Your task to perform on an android device: toggle improve location accuracy Image 0: 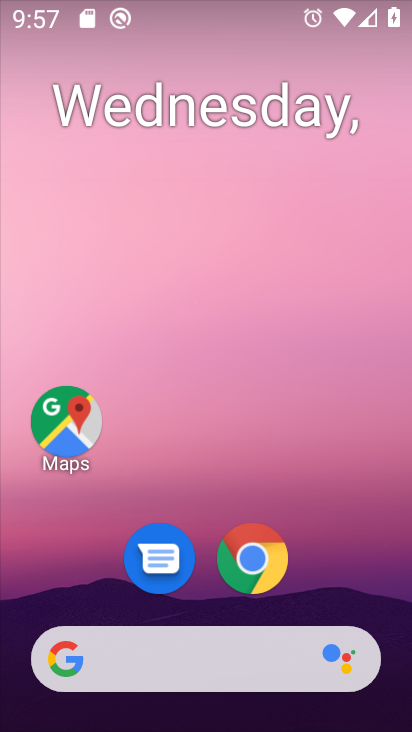
Step 0: drag from (361, 586) to (382, 92)
Your task to perform on an android device: toggle improve location accuracy Image 1: 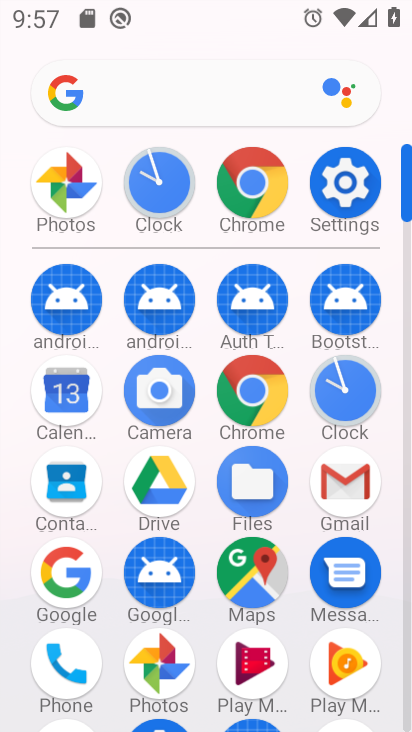
Step 1: click (354, 199)
Your task to perform on an android device: toggle improve location accuracy Image 2: 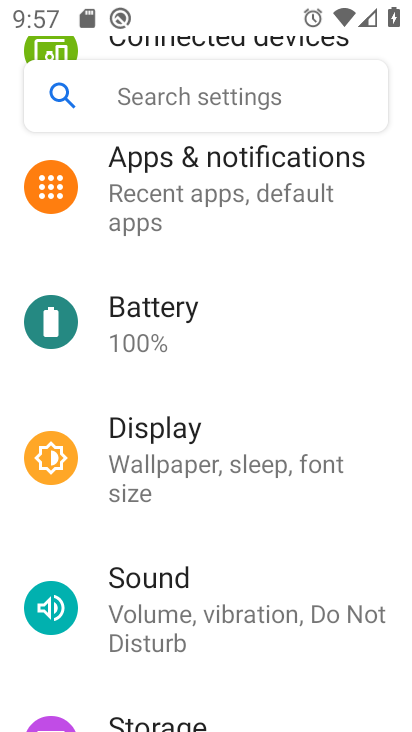
Step 2: drag from (348, 258) to (346, 365)
Your task to perform on an android device: toggle improve location accuracy Image 3: 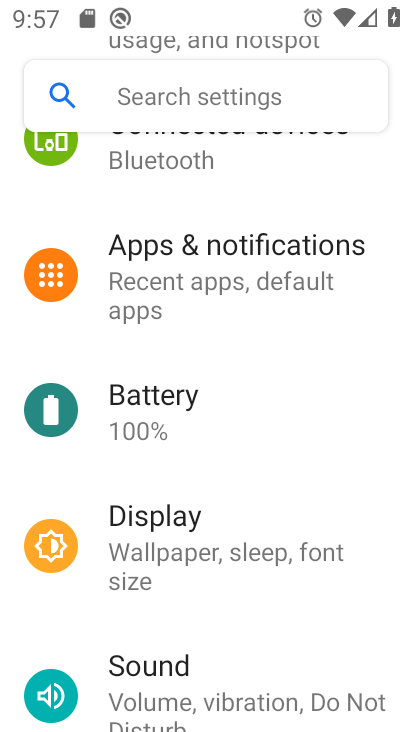
Step 3: drag from (373, 206) to (372, 385)
Your task to perform on an android device: toggle improve location accuracy Image 4: 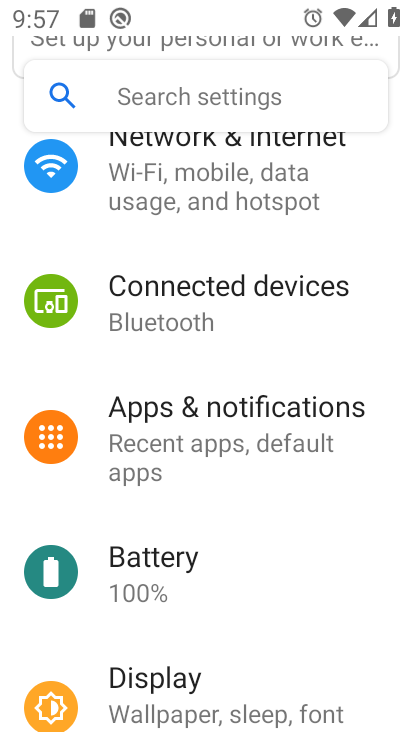
Step 4: drag from (370, 211) to (372, 366)
Your task to perform on an android device: toggle improve location accuracy Image 5: 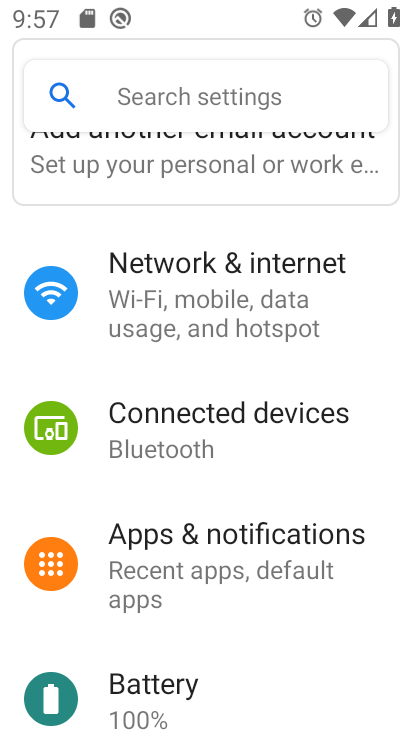
Step 5: drag from (363, 264) to (353, 415)
Your task to perform on an android device: toggle improve location accuracy Image 6: 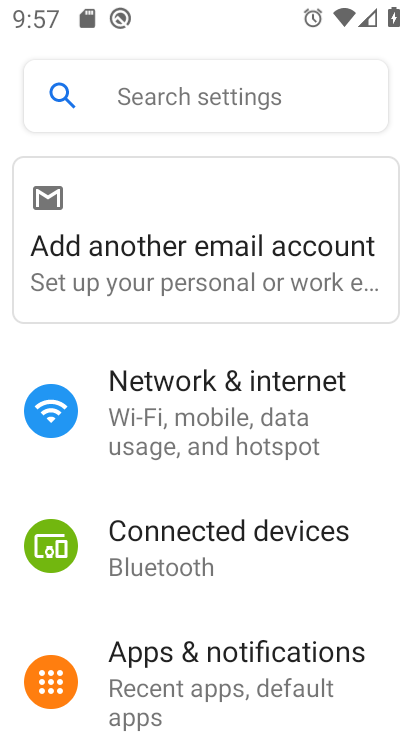
Step 6: drag from (357, 503) to (363, 398)
Your task to perform on an android device: toggle improve location accuracy Image 7: 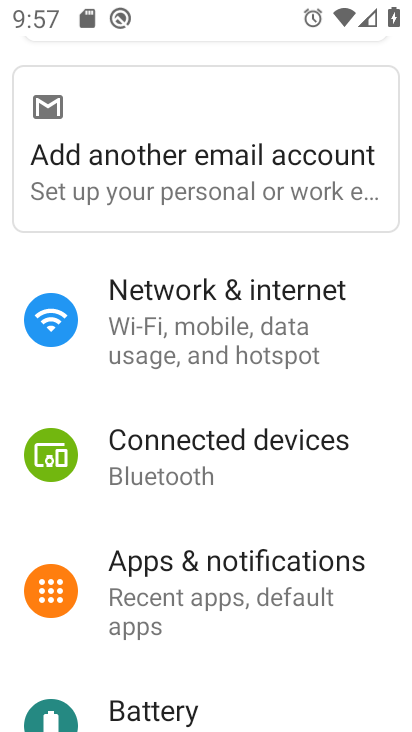
Step 7: drag from (374, 522) to (366, 384)
Your task to perform on an android device: toggle improve location accuracy Image 8: 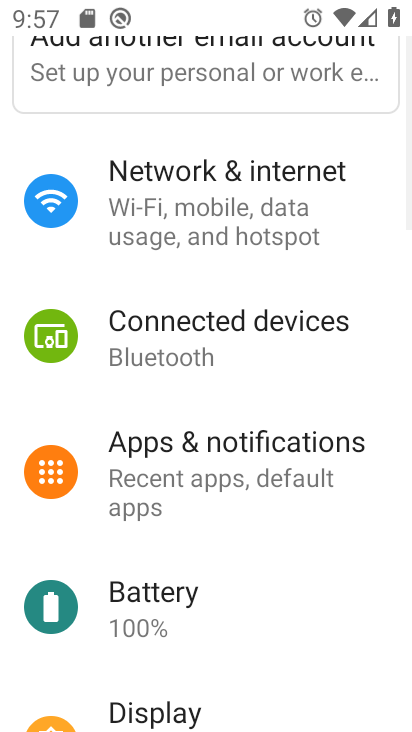
Step 8: drag from (351, 546) to (347, 441)
Your task to perform on an android device: toggle improve location accuracy Image 9: 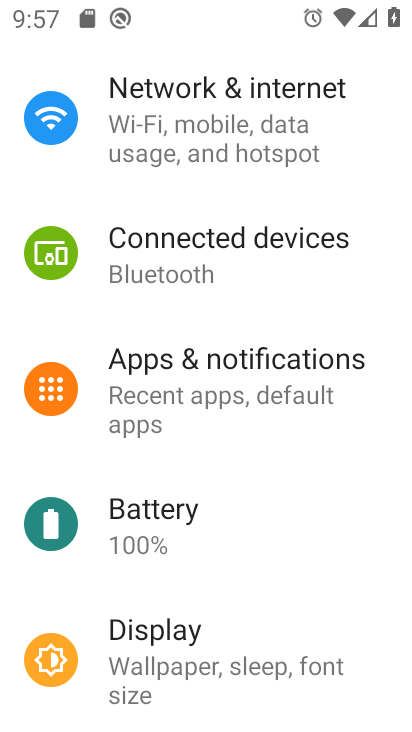
Step 9: drag from (342, 515) to (343, 419)
Your task to perform on an android device: toggle improve location accuracy Image 10: 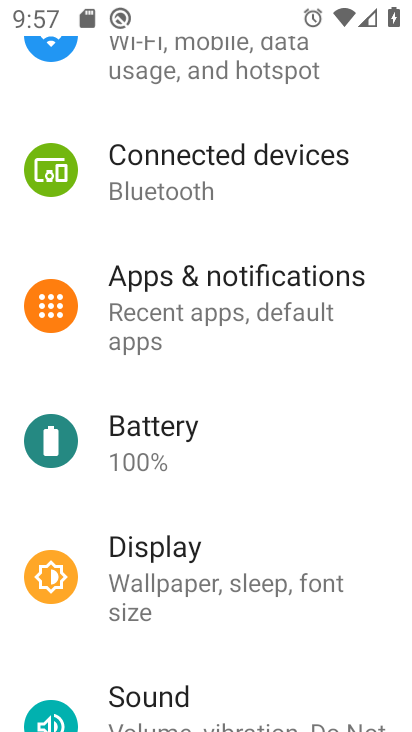
Step 10: drag from (342, 520) to (343, 401)
Your task to perform on an android device: toggle improve location accuracy Image 11: 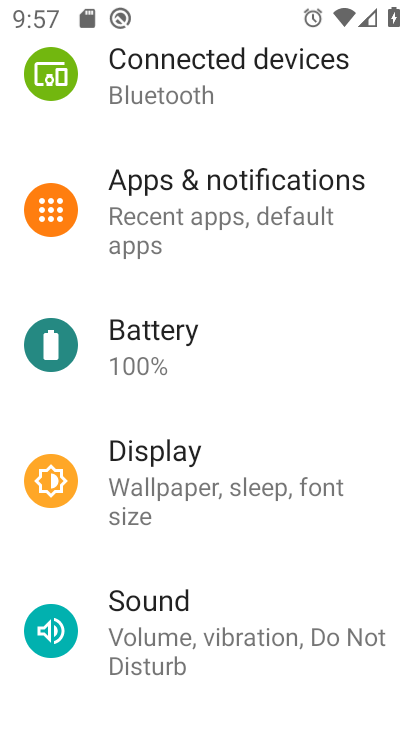
Step 11: drag from (353, 538) to (337, 406)
Your task to perform on an android device: toggle improve location accuracy Image 12: 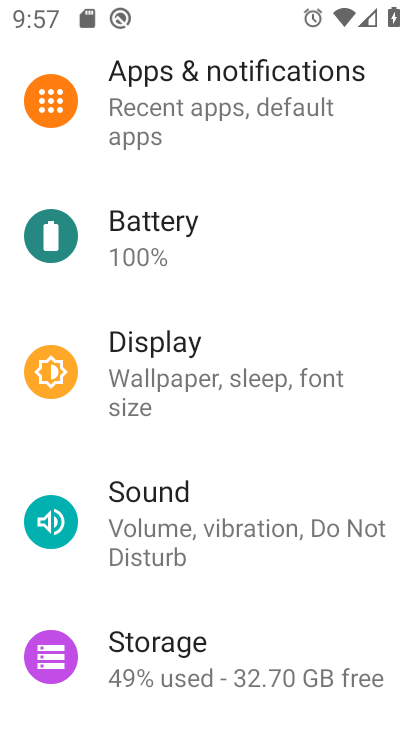
Step 12: drag from (331, 574) to (324, 443)
Your task to perform on an android device: toggle improve location accuracy Image 13: 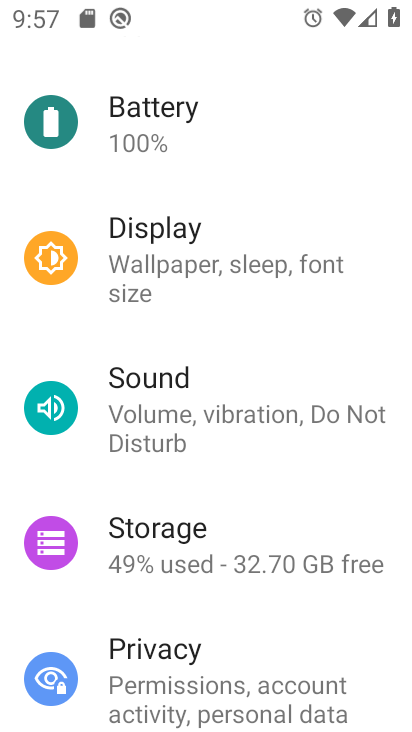
Step 13: drag from (348, 501) to (361, 314)
Your task to perform on an android device: toggle improve location accuracy Image 14: 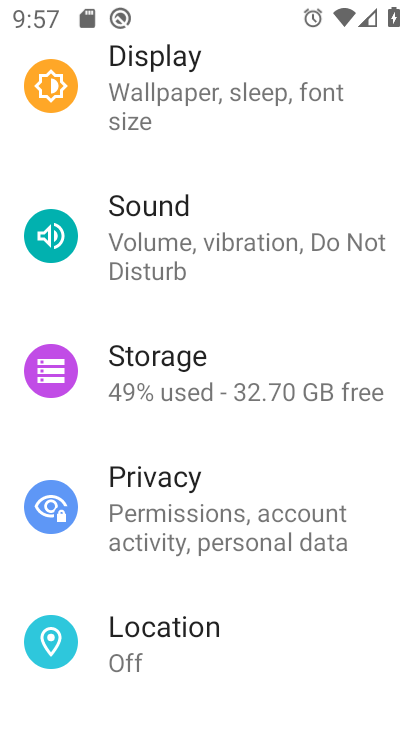
Step 14: drag from (338, 588) to (348, 476)
Your task to perform on an android device: toggle improve location accuracy Image 15: 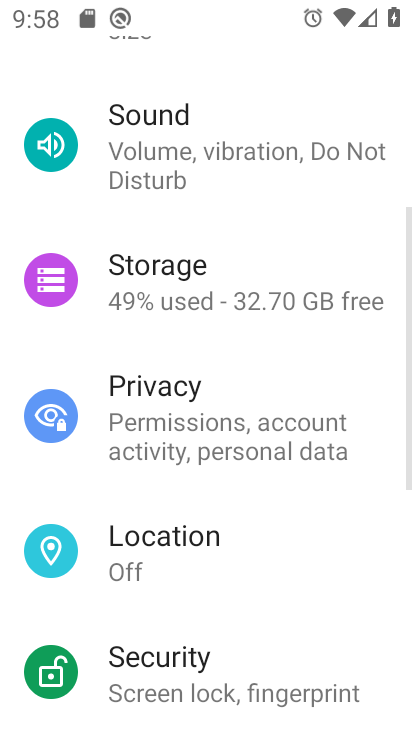
Step 15: drag from (333, 582) to (336, 468)
Your task to perform on an android device: toggle improve location accuracy Image 16: 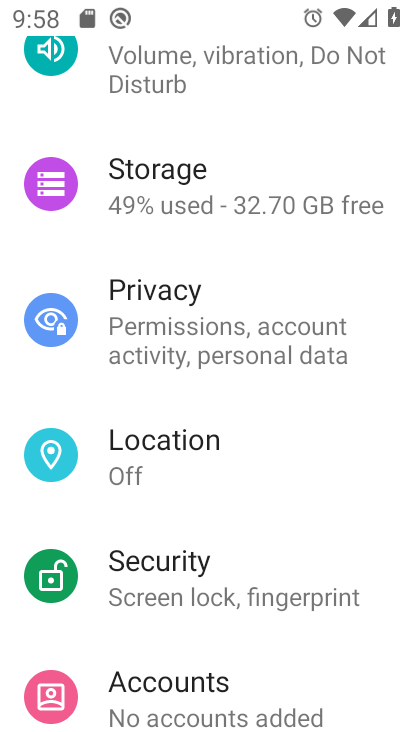
Step 16: click (214, 471)
Your task to perform on an android device: toggle improve location accuracy Image 17: 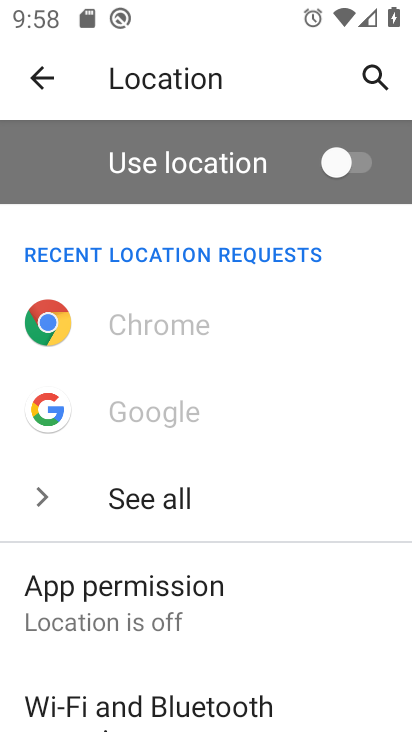
Step 17: drag from (325, 587) to (330, 478)
Your task to perform on an android device: toggle improve location accuracy Image 18: 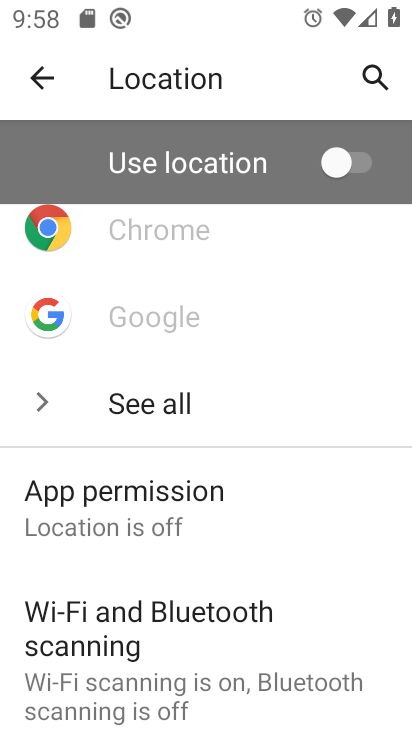
Step 18: drag from (318, 583) to (335, 396)
Your task to perform on an android device: toggle improve location accuracy Image 19: 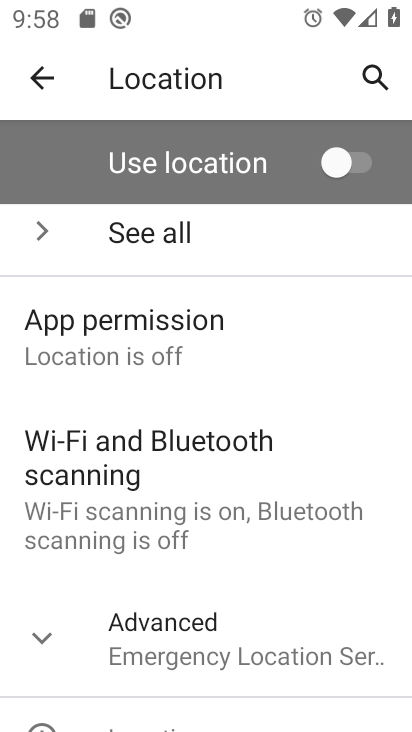
Step 19: drag from (337, 561) to (343, 441)
Your task to perform on an android device: toggle improve location accuracy Image 20: 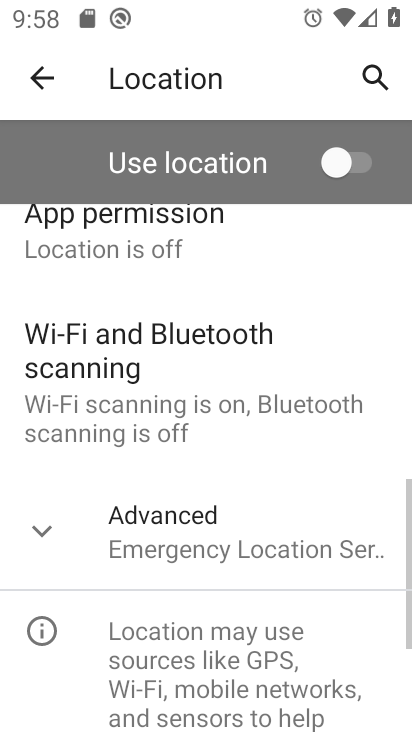
Step 20: click (318, 566)
Your task to perform on an android device: toggle improve location accuracy Image 21: 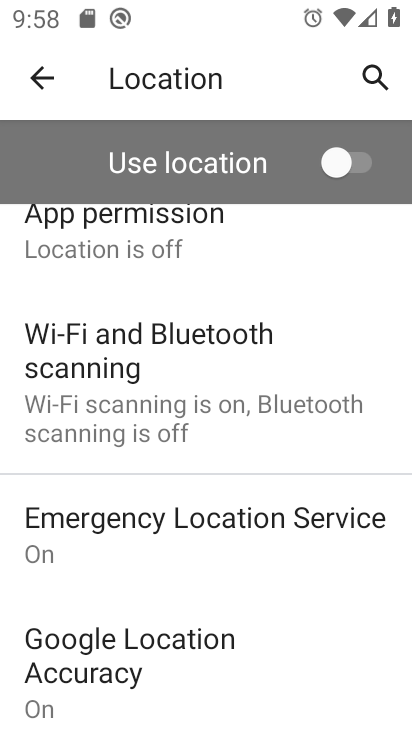
Step 21: drag from (281, 640) to (310, 505)
Your task to perform on an android device: toggle improve location accuracy Image 22: 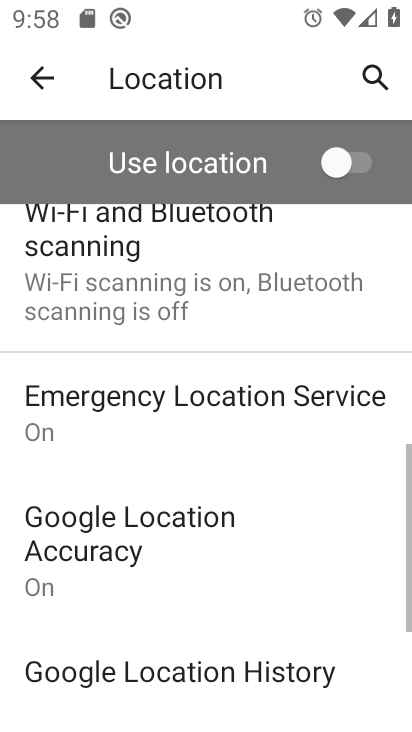
Step 22: click (236, 554)
Your task to perform on an android device: toggle improve location accuracy Image 23: 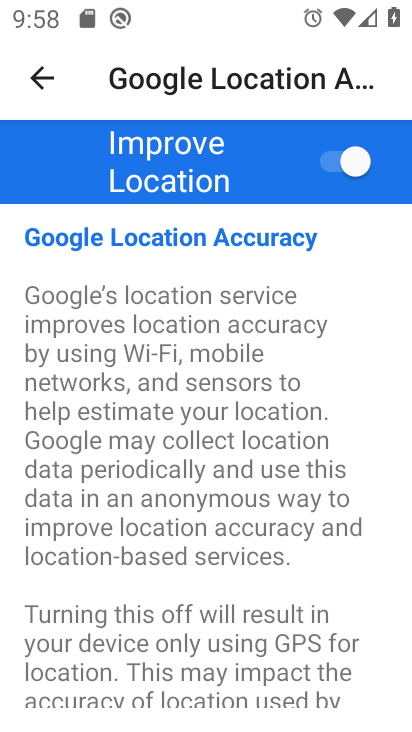
Step 23: click (345, 161)
Your task to perform on an android device: toggle improve location accuracy Image 24: 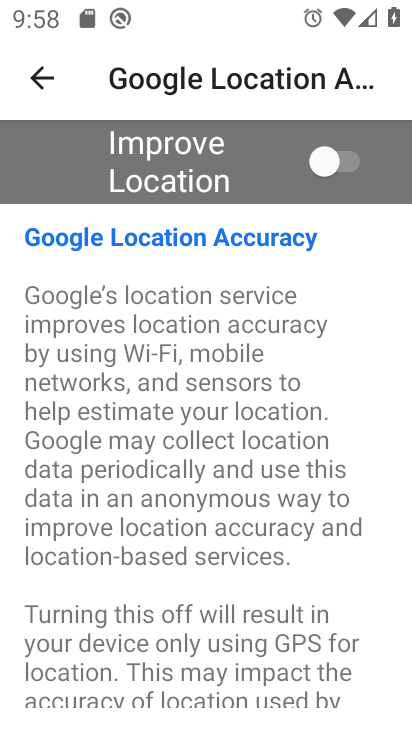
Step 24: task complete